Your task to perform on an android device: turn off improve location accuracy Image 0: 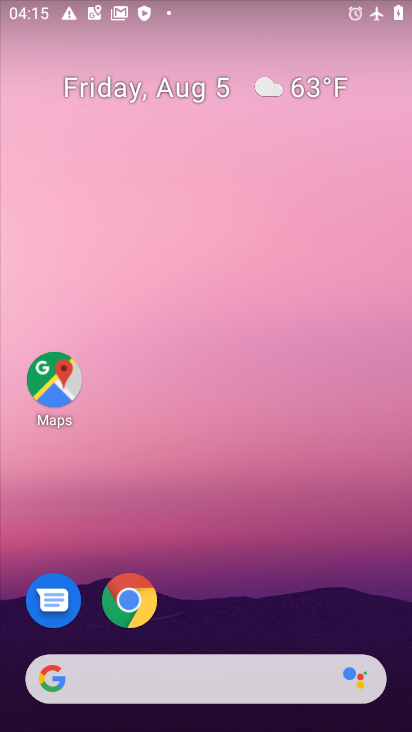
Step 0: drag from (196, 678) to (226, 156)
Your task to perform on an android device: turn off improve location accuracy Image 1: 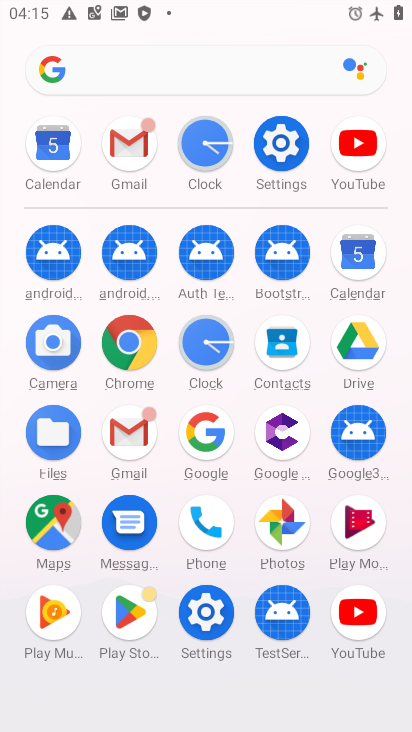
Step 1: click (280, 143)
Your task to perform on an android device: turn off improve location accuracy Image 2: 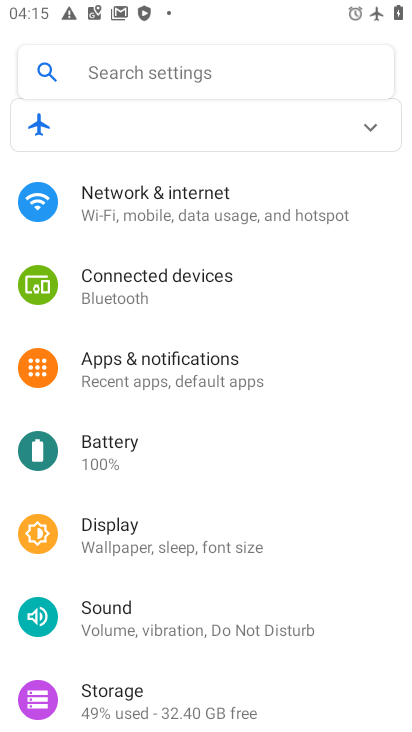
Step 2: drag from (146, 578) to (189, 456)
Your task to perform on an android device: turn off improve location accuracy Image 3: 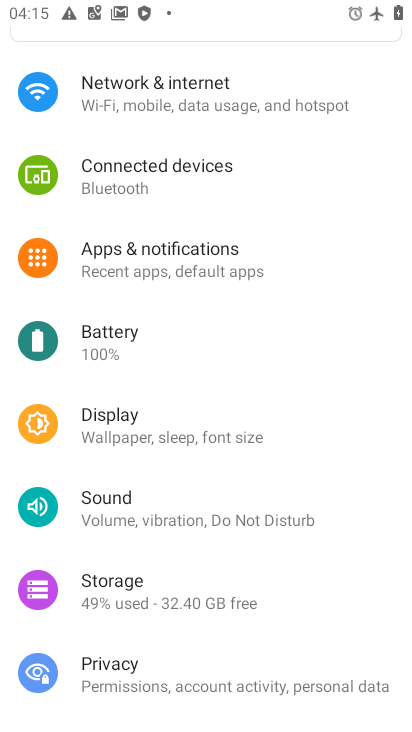
Step 3: drag from (172, 564) to (256, 442)
Your task to perform on an android device: turn off improve location accuracy Image 4: 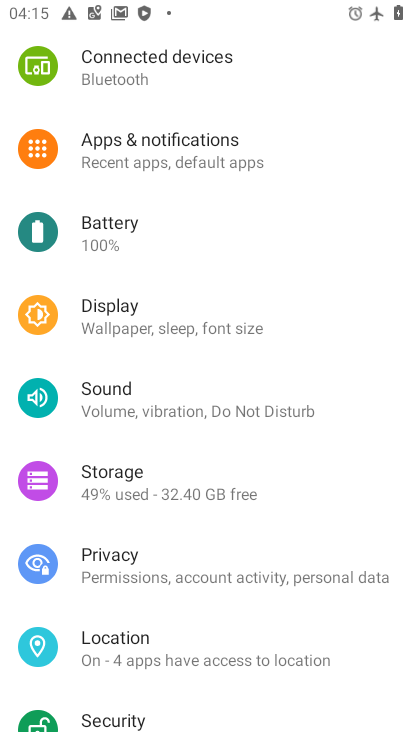
Step 4: drag from (166, 605) to (222, 503)
Your task to perform on an android device: turn off improve location accuracy Image 5: 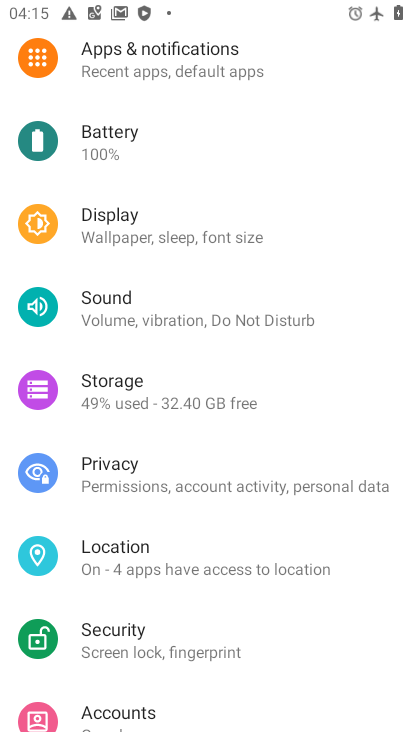
Step 5: click (130, 563)
Your task to perform on an android device: turn off improve location accuracy Image 6: 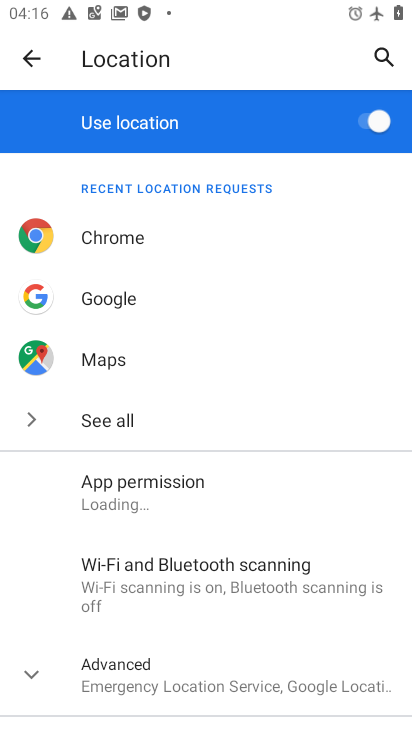
Step 6: drag from (157, 618) to (229, 513)
Your task to perform on an android device: turn off improve location accuracy Image 7: 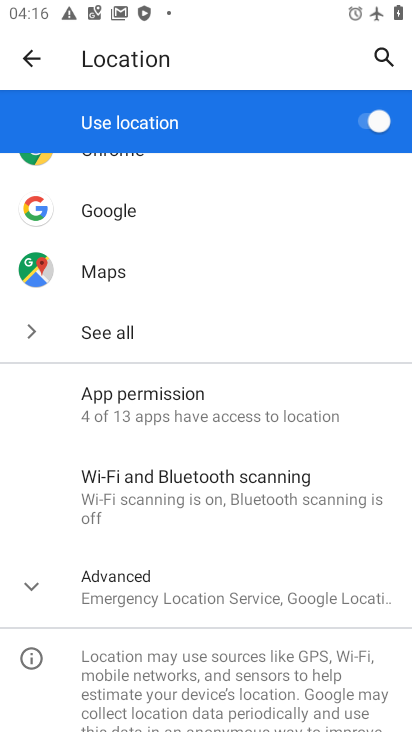
Step 7: click (189, 588)
Your task to perform on an android device: turn off improve location accuracy Image 8: 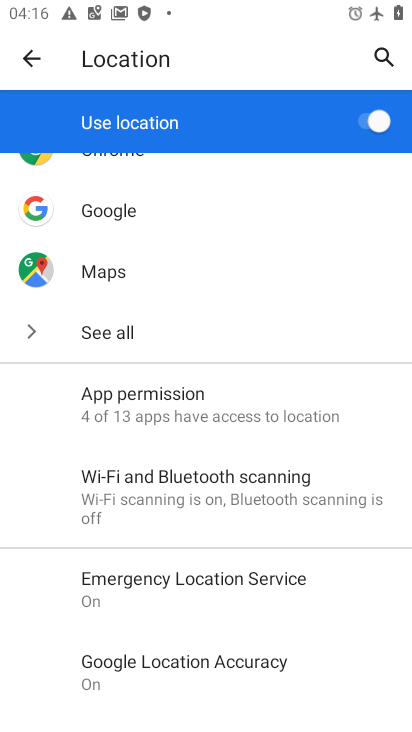
Step 8: drag from (163, 590) to (220, 470)
Your task to perform on an android device: turn off improve location accuracy Image 9: 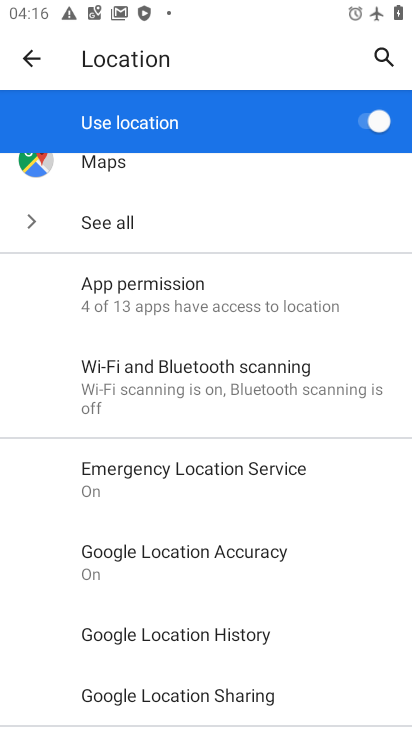
Step 9: click (197, 555)
Your task to perform on an android device: turn off improve location accuracy Image 10: 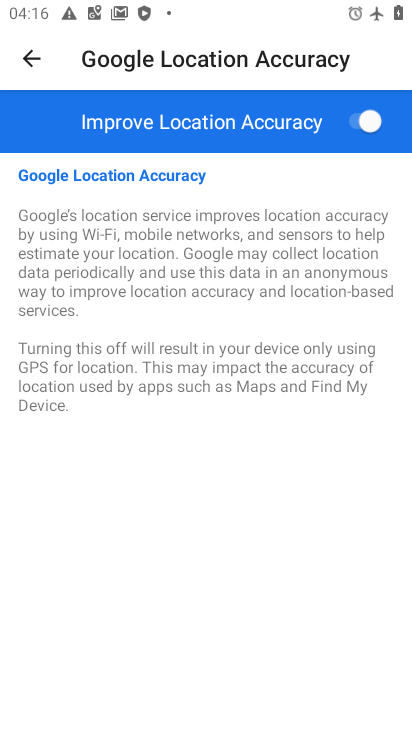
Step 10: click (365, 124)
Your task to perform on an android device: turn off improve location accuracy Image 11: 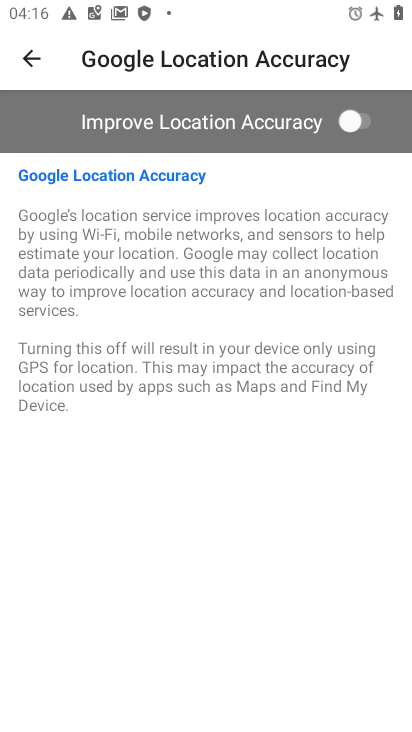
Step 11: task complete